Your task to perform on an android device: toggle location history Image 0: 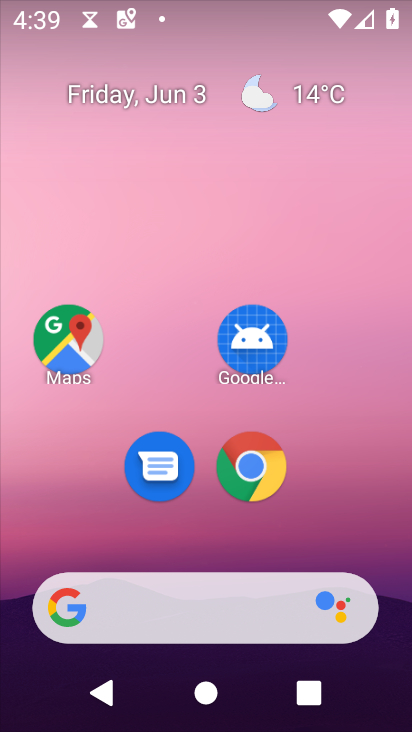
Step 0: drag from (325, 488) to (304, 13)
Your task to perform on an android device: toggle location history Image 1: 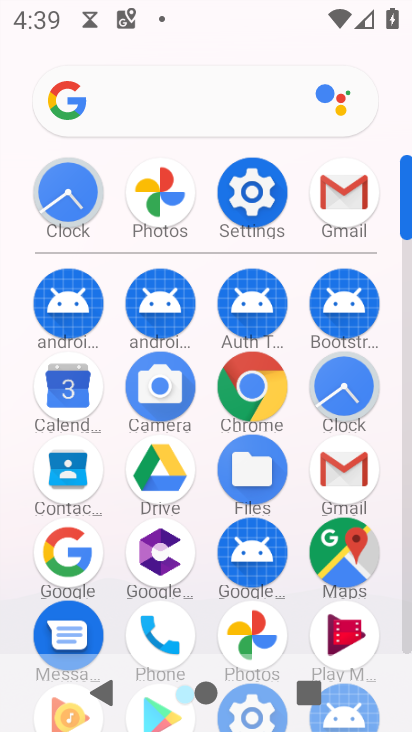
Step 1: click (259, 215)
Your task to perform on an android device: toggle location history Image 2: 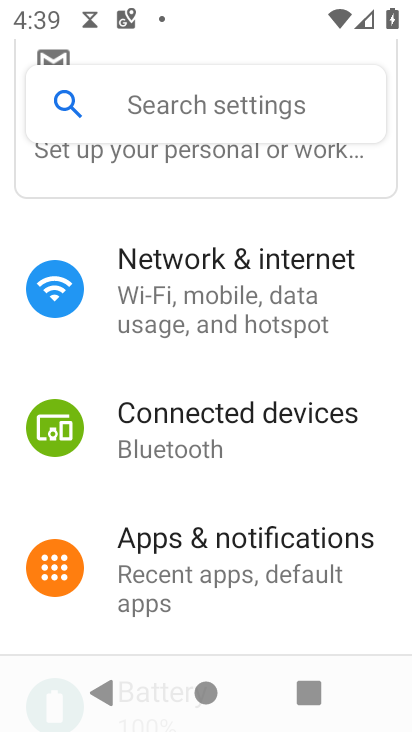
Step 2: drag from (207, 466) to (259, 174)
Your task to perform on an android device: toggle location history Image 3: 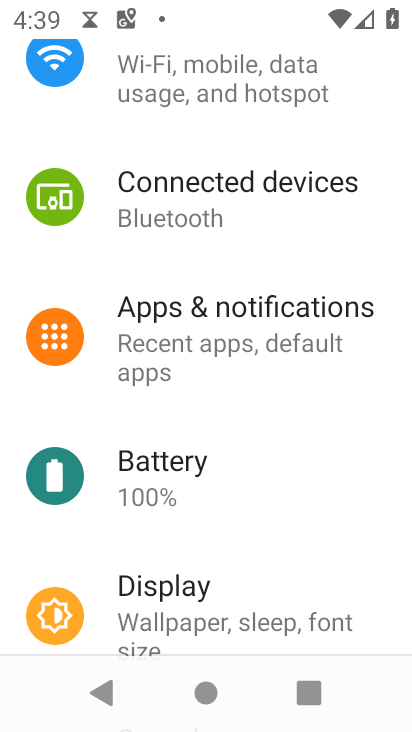
Step 3: drag from (317, 537) to (343, 112)
Your task to perform on an android device: toggle location history Image 4: 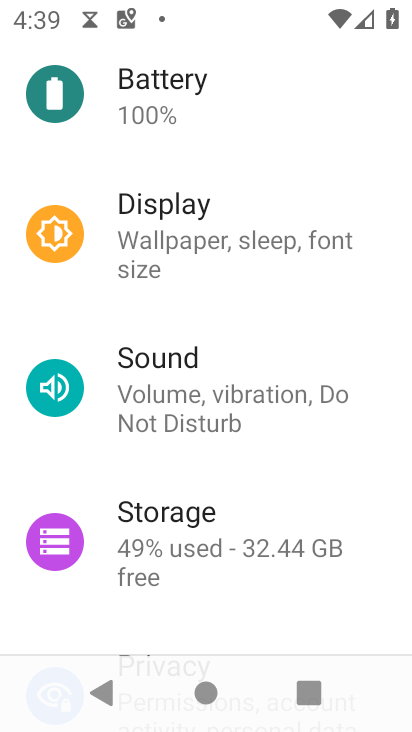
Step 4: drag from (280, 464) to (304, 76)
Your task to perform on an android device: toggle location history Image 5: 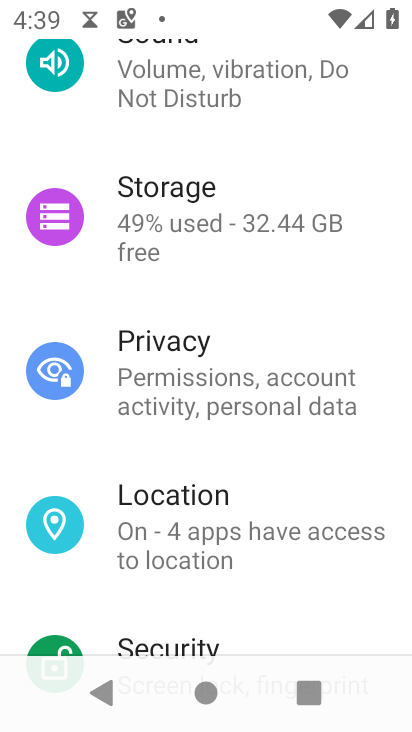
Step 5: drag from (223, 308) to (247, 148)
Your task to perform on an android device: toggle location history Image 6: 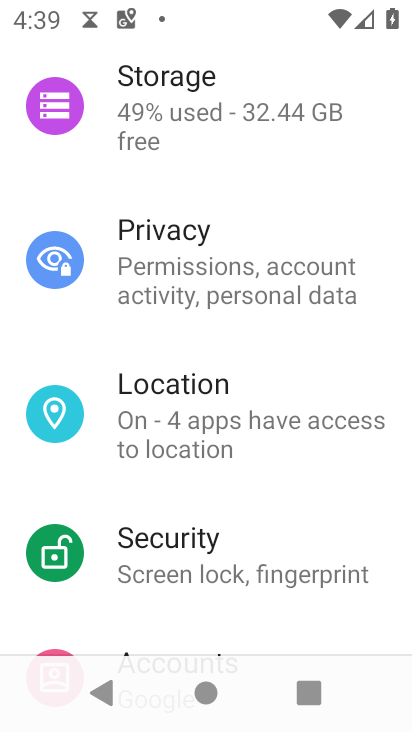
Step 6: click (206, 384)
Your task to perform on an android device: toggle location history Image 7: 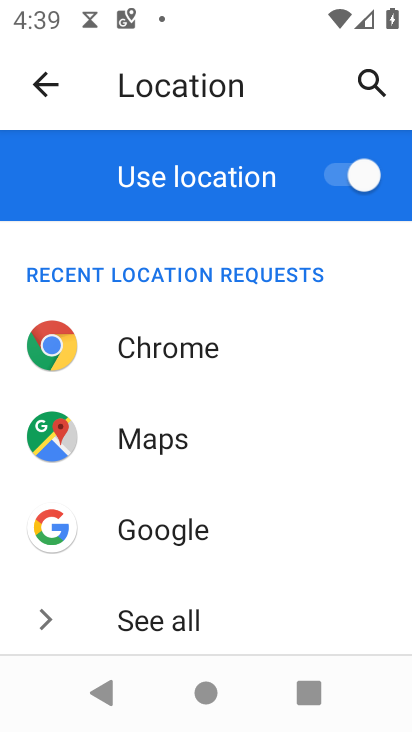
Step 7: drag from (245, 571) to (267, 223)
Your task to perform on an android device: toggle location history Image 8: 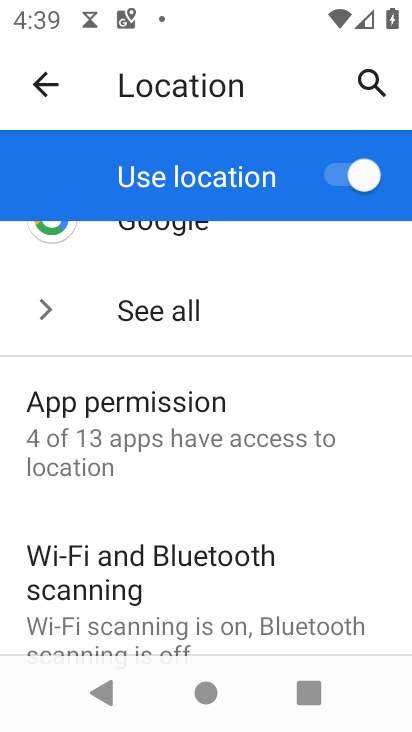
Step 8: click (353, 173)
Your task to perform on an android device: toggle location history Image 9: 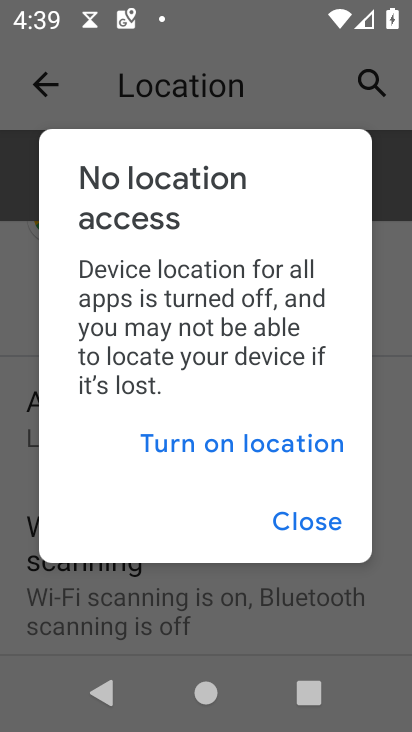
Step 9: task complete